Your task to perform on an android device: turn on wifi Image 0: 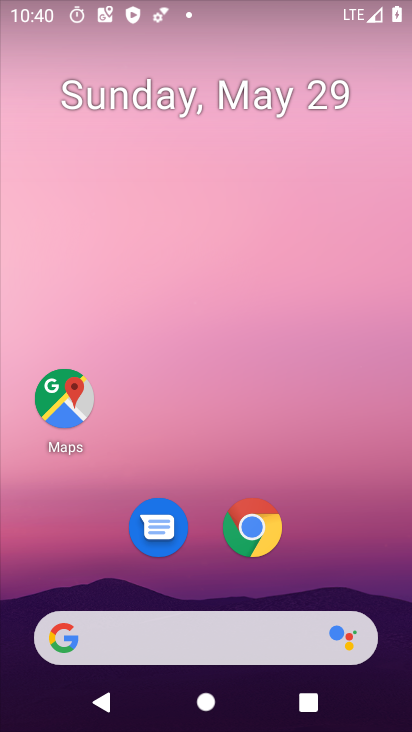
Step 0: drag from (325, 555) to (310, 214)
Your task to perform on an android device: turn on wifi Image 1: 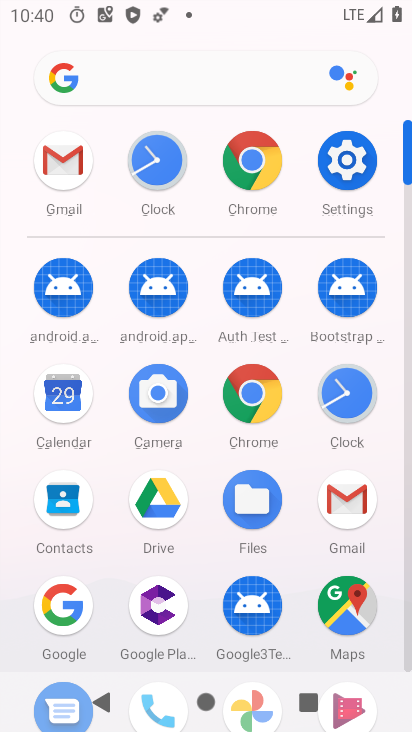
Step 1: click (359, 142)
Your task to perform on an android device: turn on wifi Image 2: 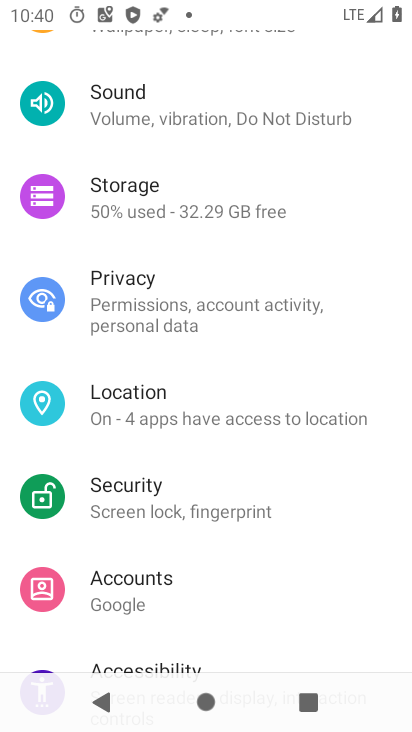
Step 2: drag from (247, 163) to (245, 532)
Your task to perform on an android device: turn on wifi Image 3: 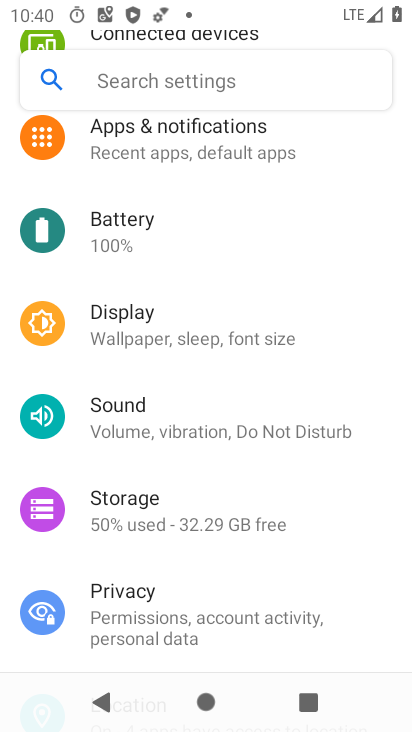
Step 3: drag from (227, 213) to (251, 572)
Your task to perform on an android device: turn on wifi Image 4: 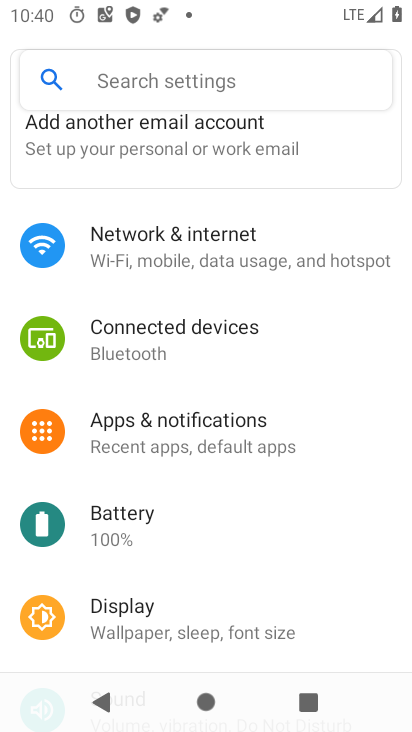
Step 4: click (228, 265)
Your task to perform on an android device: turn on wifi Image 5: 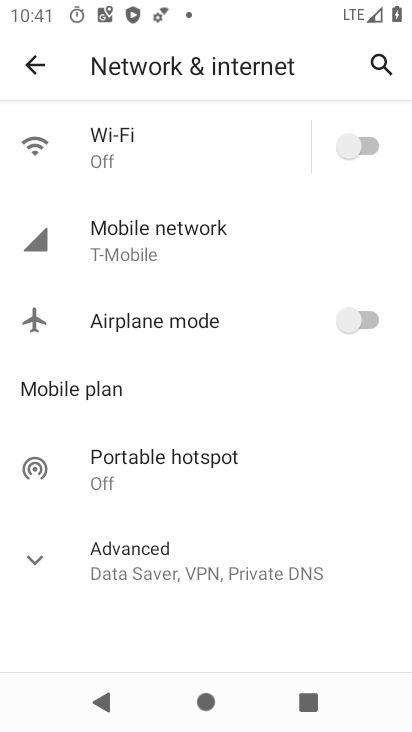
Step 5: click (372, 145)
Your task to perform on an android device: turn on wifi Image 6: 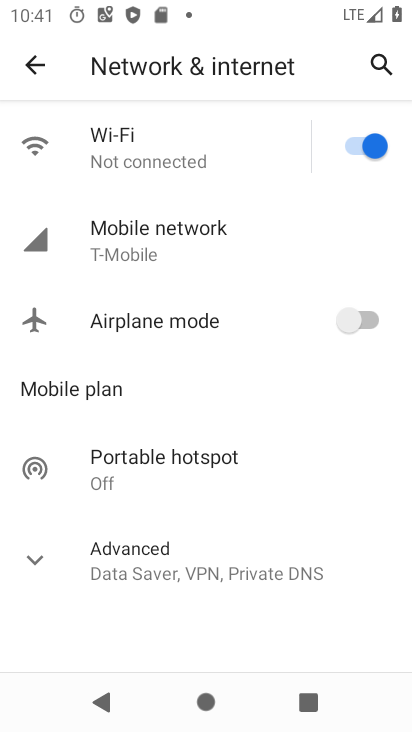
Step 6: task complete